Your task to perform on an android device: toggle data saver in the chrome app Image 0: 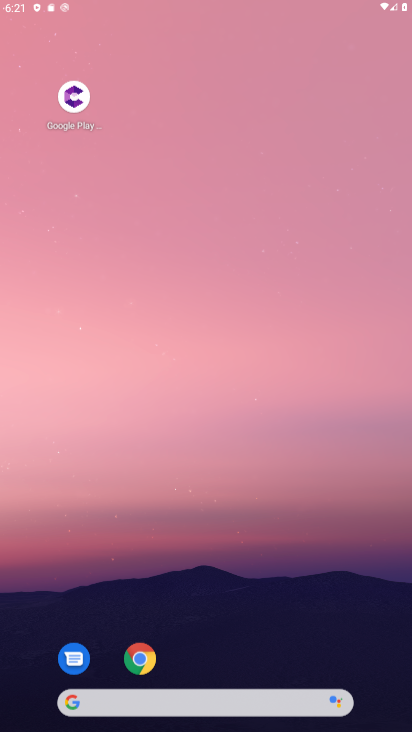
Step 0: click (305, 7)
Your task to perform on an android device: toggle data saver in the chrome app Image 1: 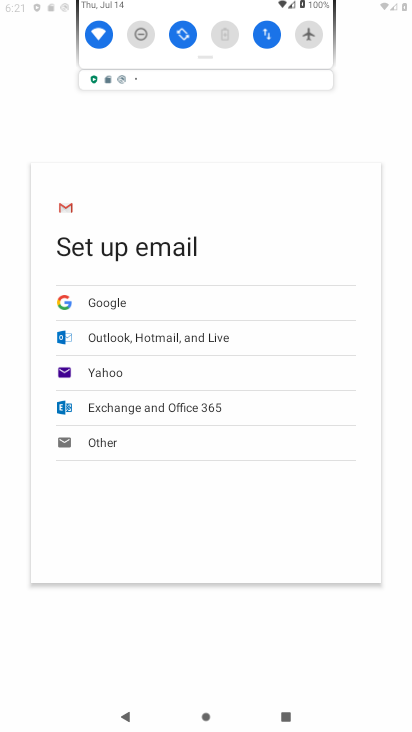
Step 1: press home button
Your task to perform on an android device: toggle data saver in the chrome app Image 2: 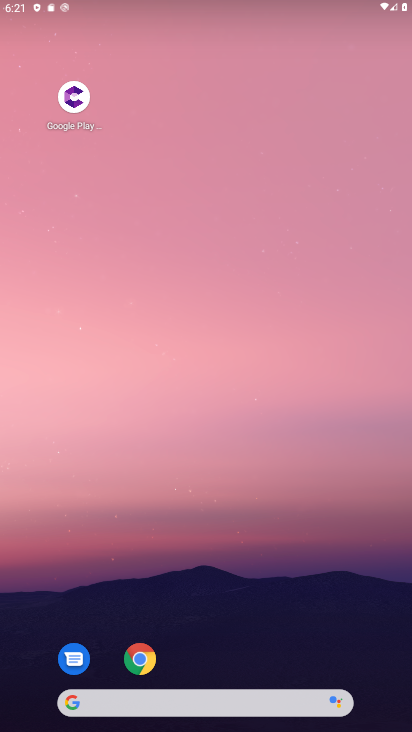
Step 2: drag from (221, 692) to (301, 42)
Your task to perform on an android device: toggle data saver in the chrome app Image 3: 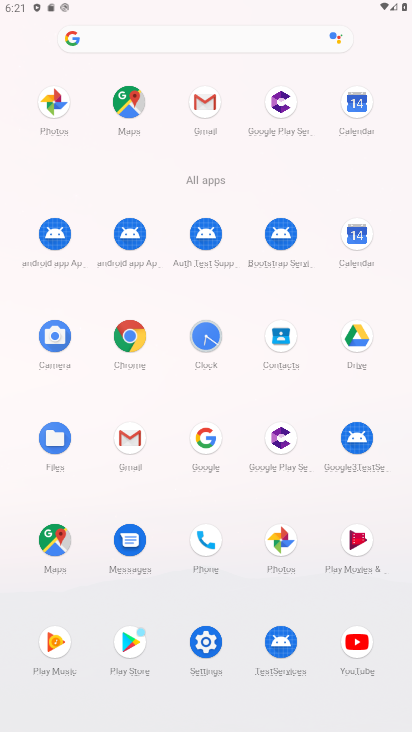
Step 3: click (130, 339)
Your task to perform on an android device: toggle data saver in the chrome app Image 4: 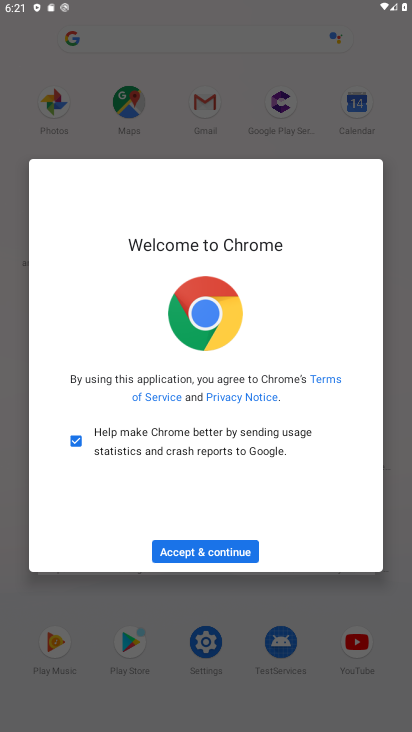
Step 4: click (223, 547)
Your task to perform on an android device: toggle data saver in the chrome app Image 5: 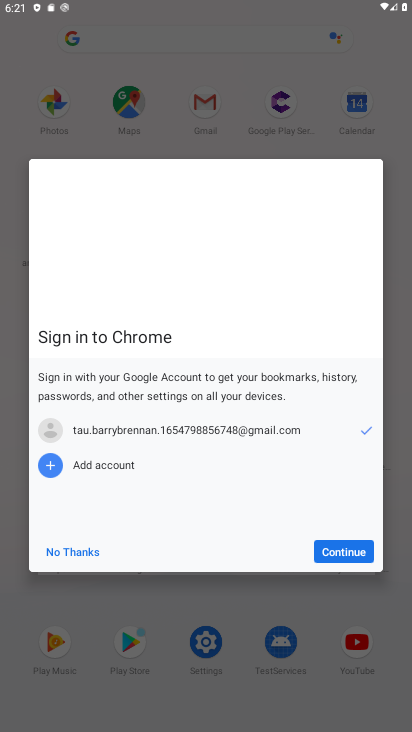
Step 5: click (87, 549)
Your task to perform on an android device: toggle data saver in the chrome app Image 6: 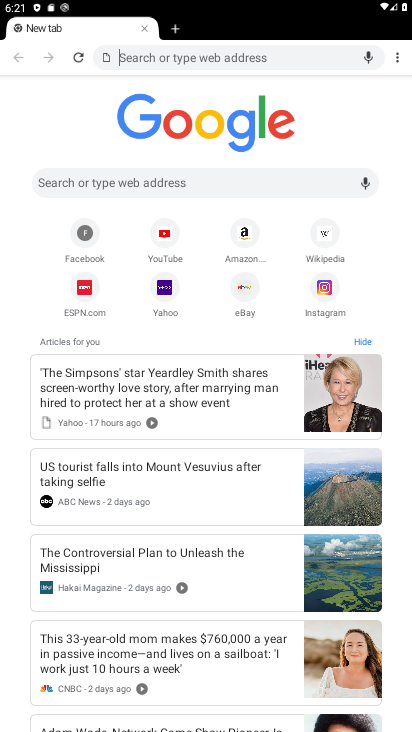
Step 6: click (398, 58)
Your task to perform on an android device: toggle data saver in the chrome app Image 7: 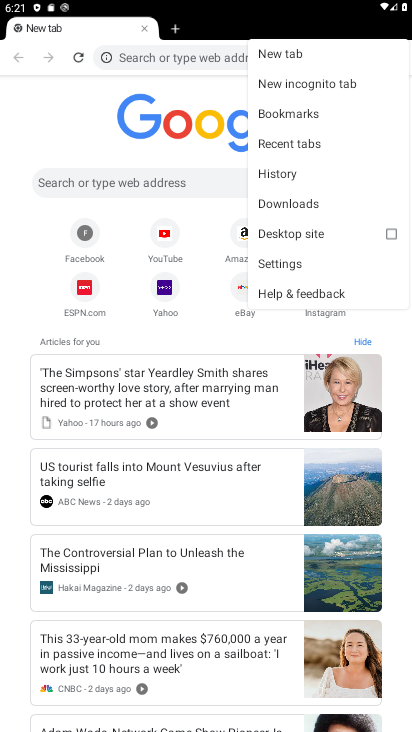
Step 7: click (290, 258)
Your task to perform on an android device: toggle data saver in the chrome app Image 8: 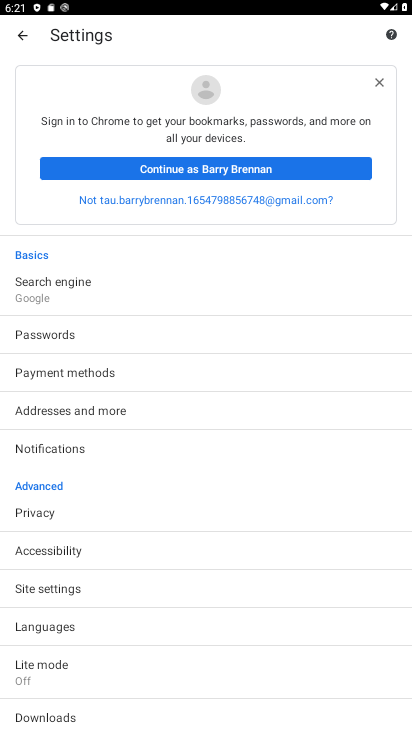
Step 8: click (75, 662)
Your task to perform on an android device: toggle data saver in the chrome app Image 9: 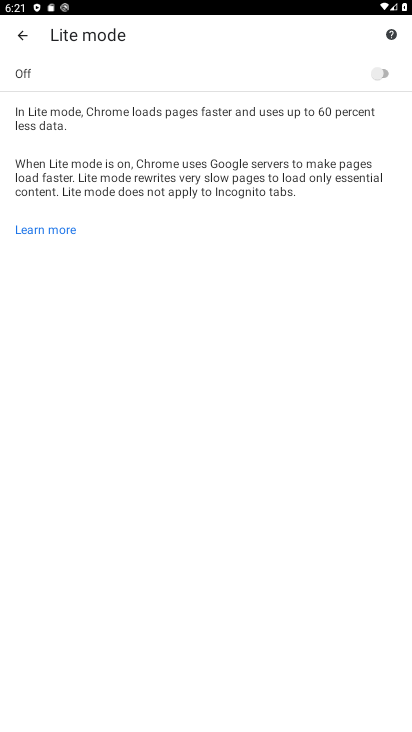
Step 9: click (387, 70)
Your task to perform on an android device: toggle data saver in the chrome app Image 10: 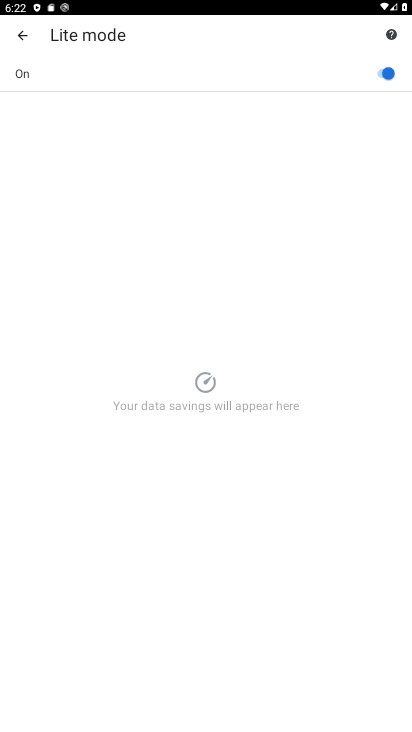
Step 10: task complete